Your task to perform on an android device: search for starred emails in the gmail app Image 0: 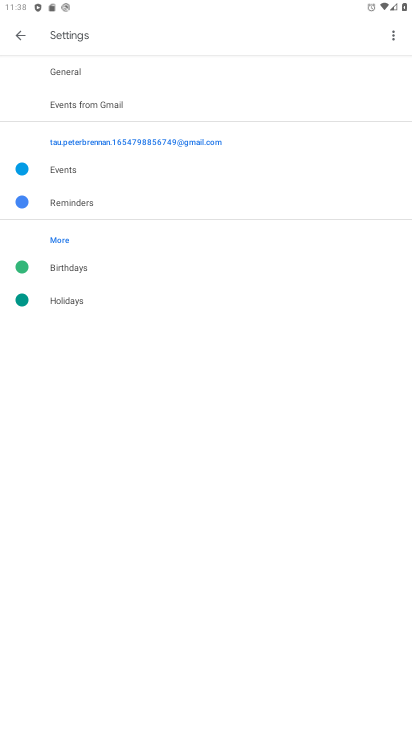
Step 0: press home button
Your task to perform on an android device: search for starred emails in the gmail app Image 1: 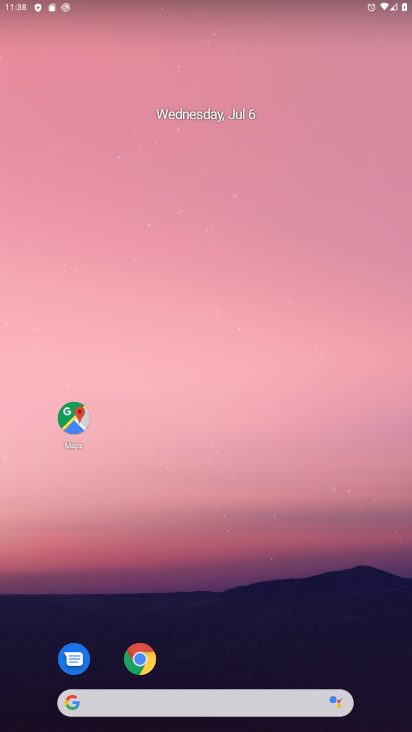
Step 1: drag from (188, 677) to (247, 67)
Your task to perform on an android device: search for starred emails in the gmail app Image 2: 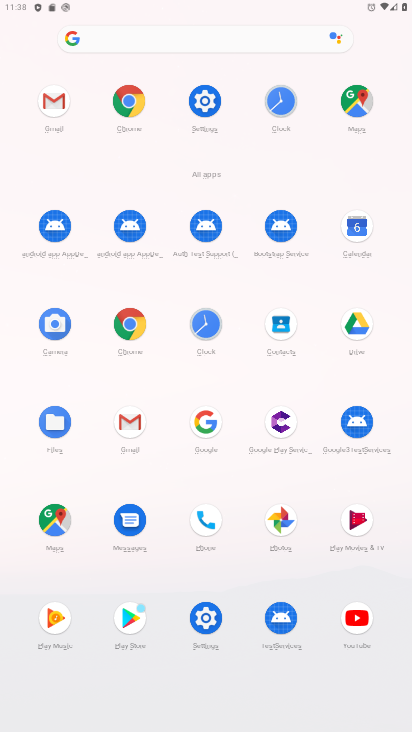
Step 2: click (132, 405)
Your task to perform on an android device: search for starred emails in the gmail app Image 3: 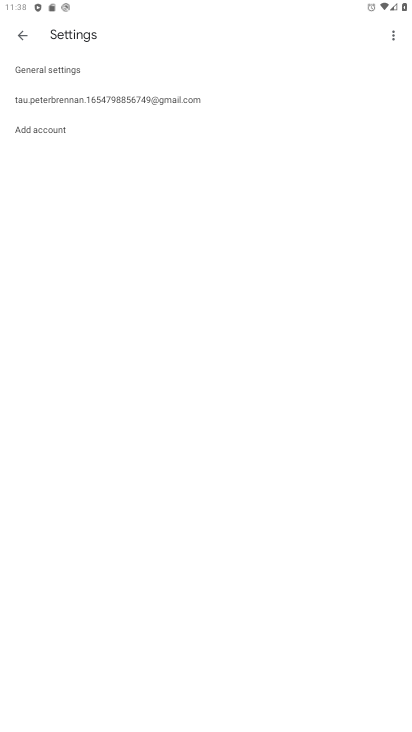
Step 3: click (29, 31)
Your task to perform on an android device: search for starred emails in the gmail app Image 4: 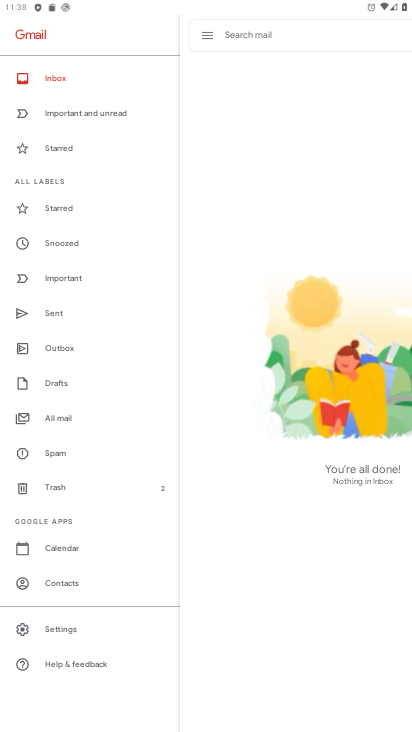
Step 4: click (80, 151)
Your task to perform on an android device: search for starred emails in the gmail app Image 5: 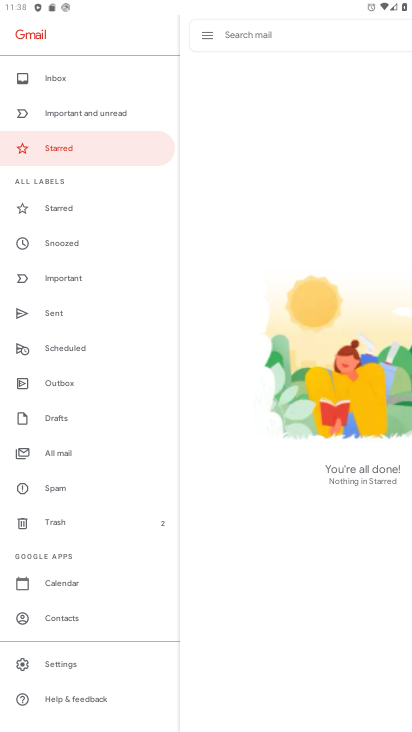
Step 5: task complete